Your task to perform on an android device: When is my next appointment? Image 0: 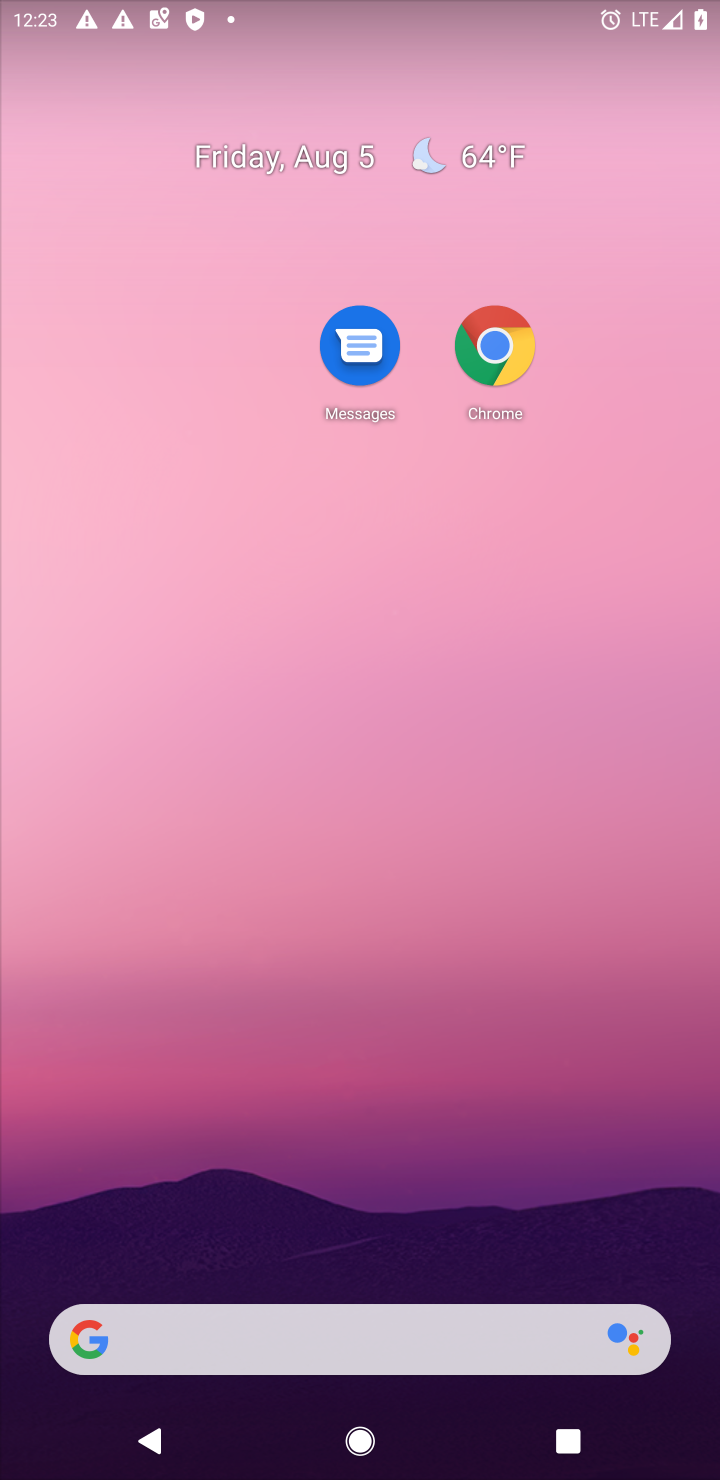
Step 0: drag from (180, 1244) to (322, 137)
Your task to perform on an android device: When is my next appointment? Image 1: 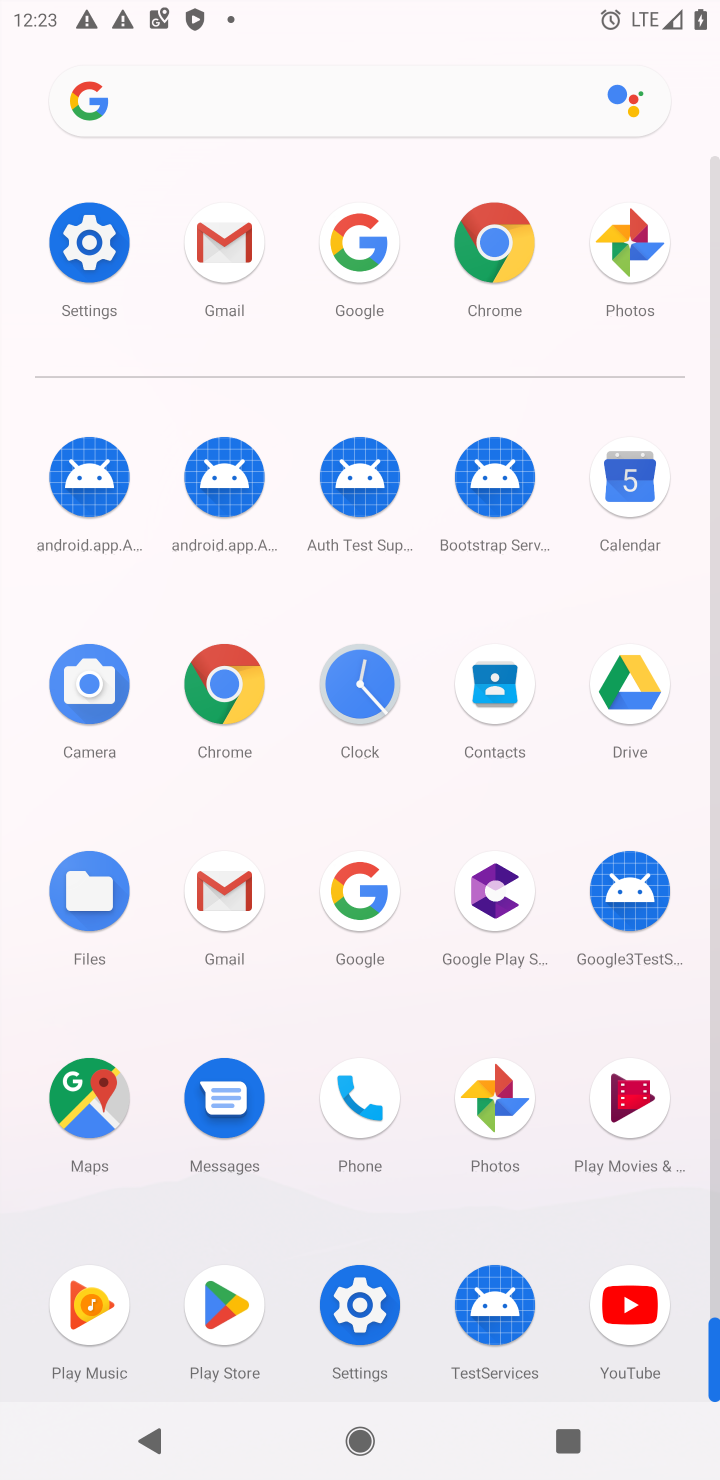
Step 1: click (628, 498)
Your task to perform on an android device: When is my next appointment? Image 2: 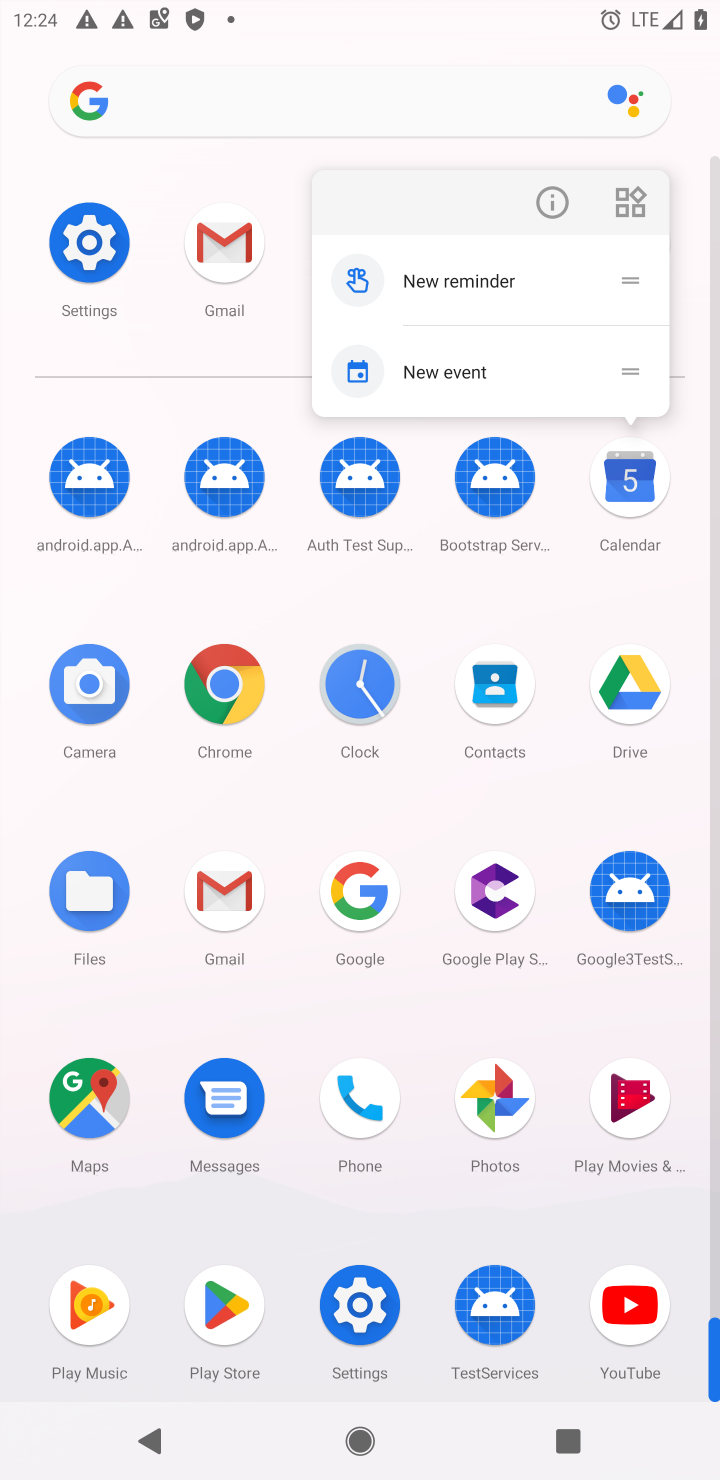
Step 2: click (631, 497)
Your task to perform on an android device: When is my next appointment? Image 3: 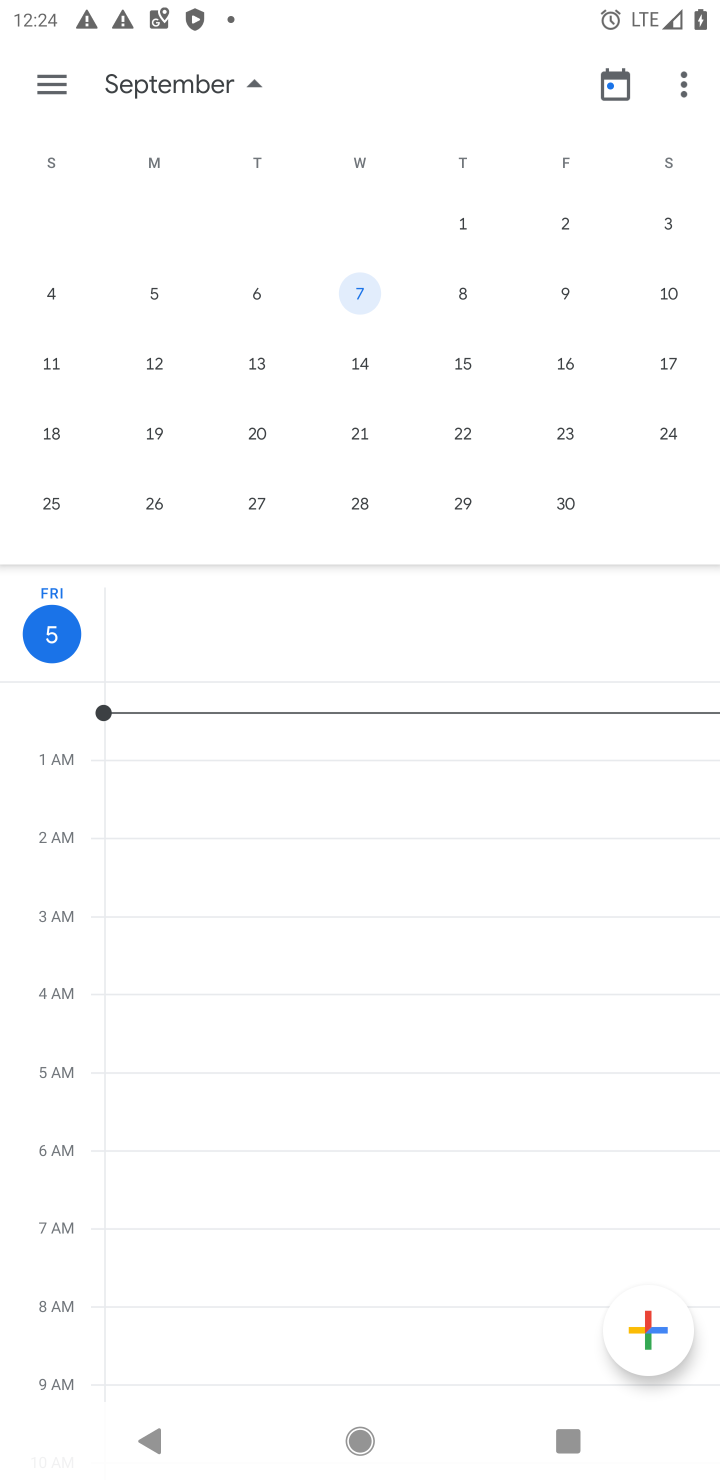
Step 3: click (348, 288)
Your task to perform on an android device: When is my next appointment? Image 4: 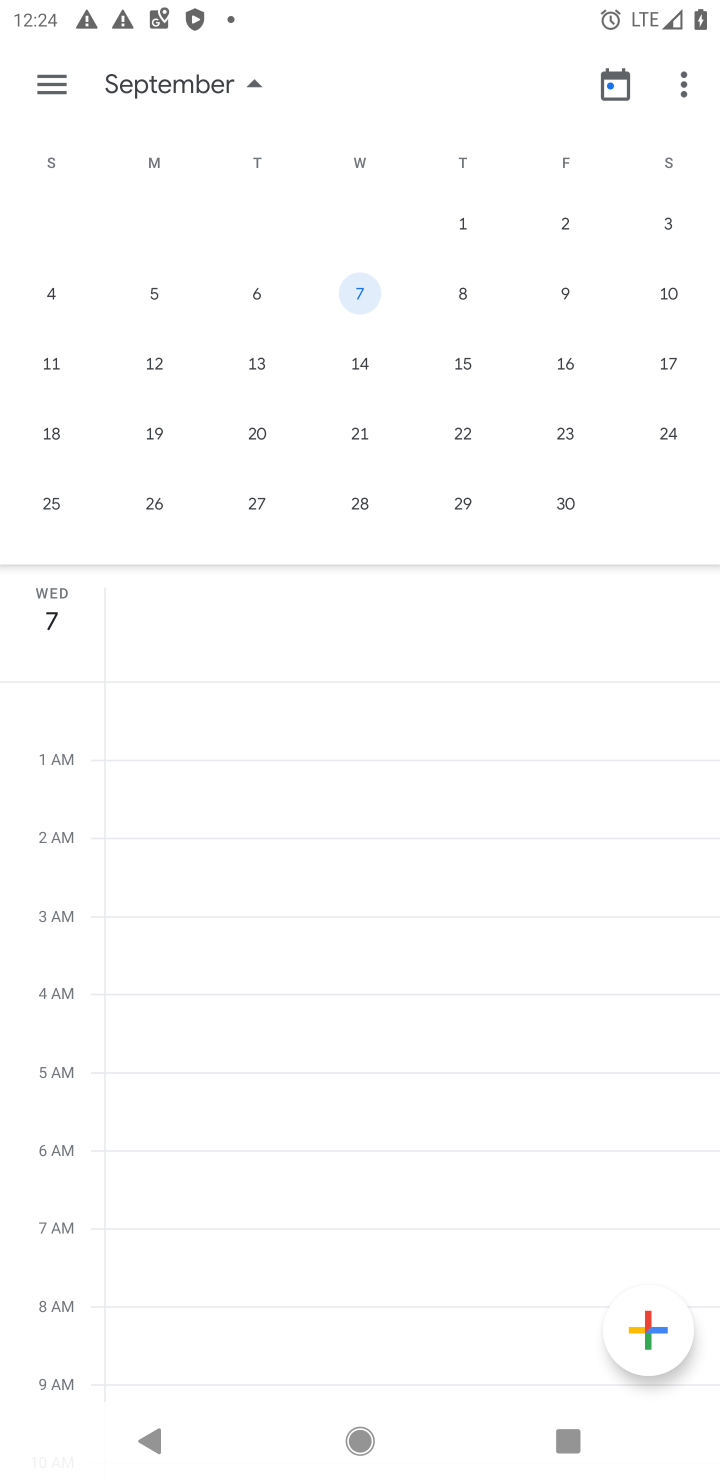
Step 4: task complete